Your task to perform on an android device: Is it going to rain tomorrow? Image 0: 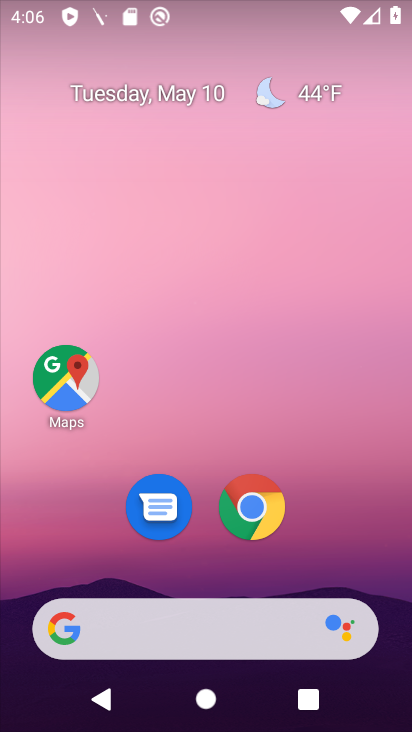
Step 0: click (313, 87)
Your task to perform on an android device: Is it going to rain tomorrow? Image 1: 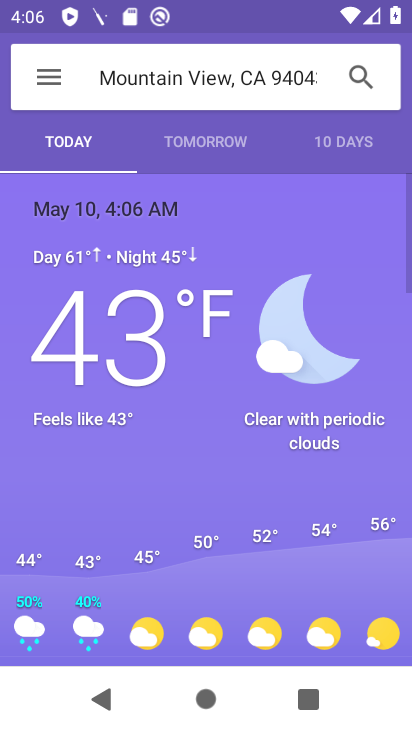
Step 1: click (151, 142)
Your task to perform on an android device: Is it going to rain tomorrow? Image 2: 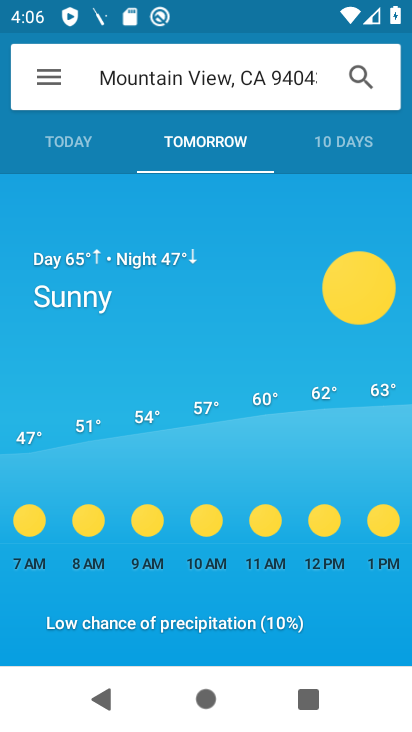
Step 2: task complete